Your task to perform on an android device: Show me recent news Image 0: 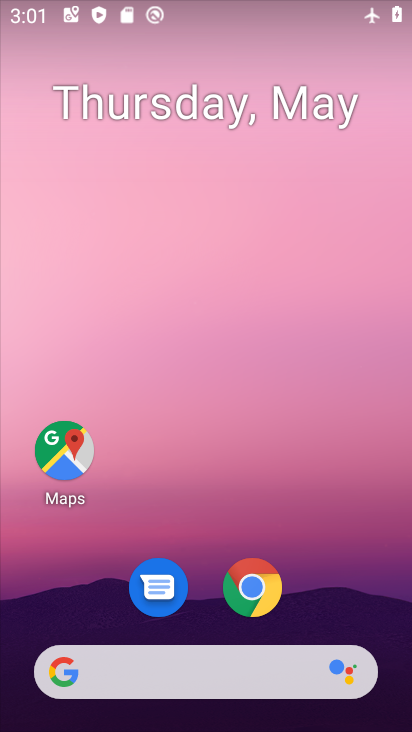
Step 0: drag from (195, 629) to (192, 413)
Your task to perform on an android device: Show me recent news Image 1: 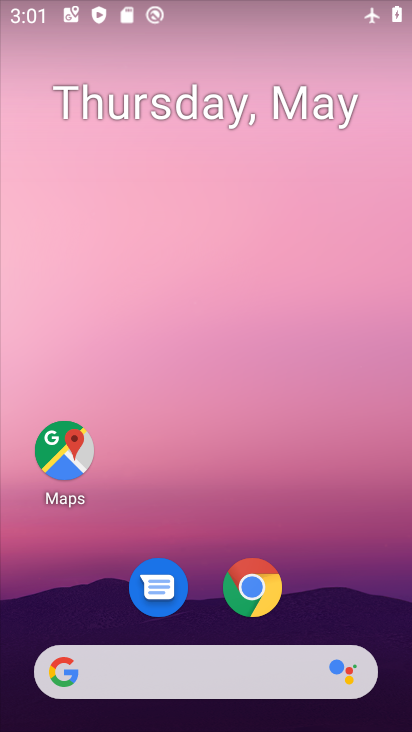
Step 1: drag from (189, 588) to (200, 131)
Your task to perform on an android device: Show me recent news Image 2: 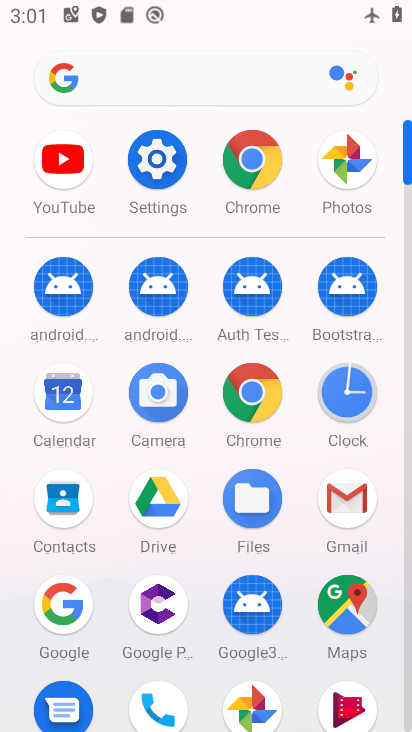
Step 2: drag from (113, 509) to (115, 419)
Your task to perform on an android device: Show me recent news Image 3: 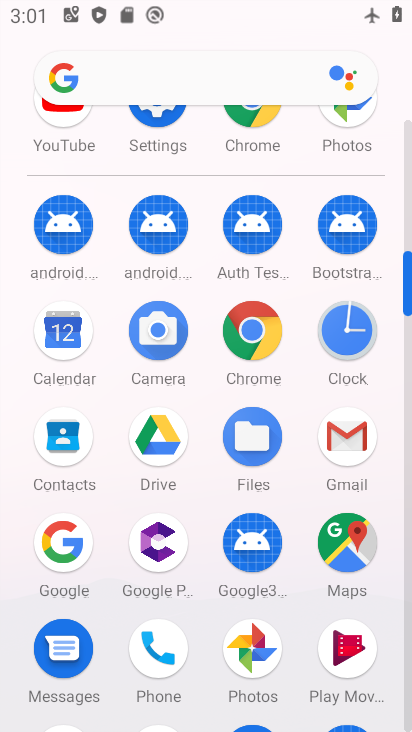
Step 3: click (67, 537)
Your task to perform on an android device: Show me recent news Image 4: 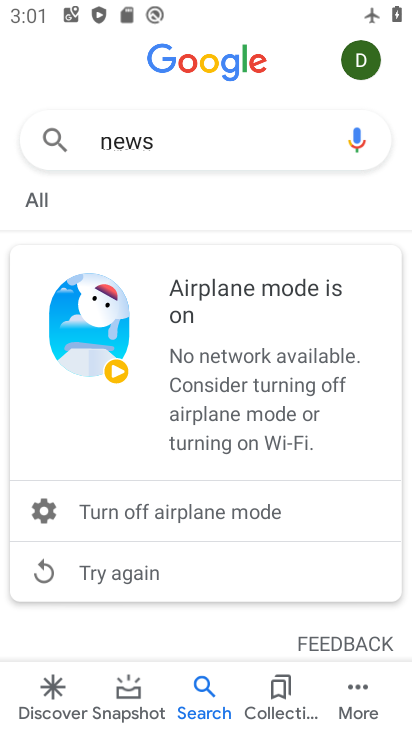
Step 4: task complete